Your task to perform on an android device: set the stopwatch Image 0: 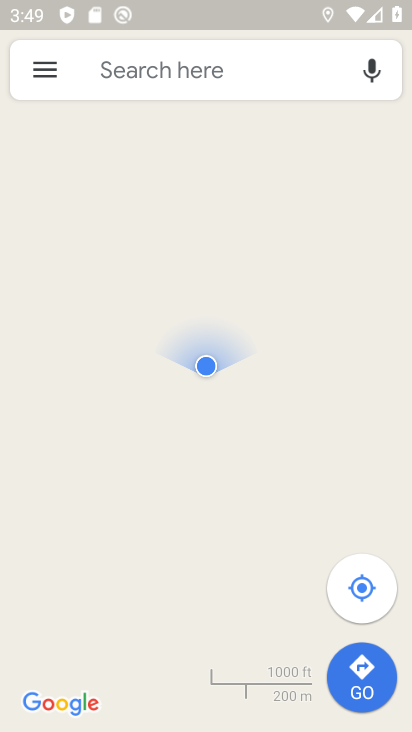
Step 0: press home button
Your task to perform on an android device: set the stopwatch Image 1: 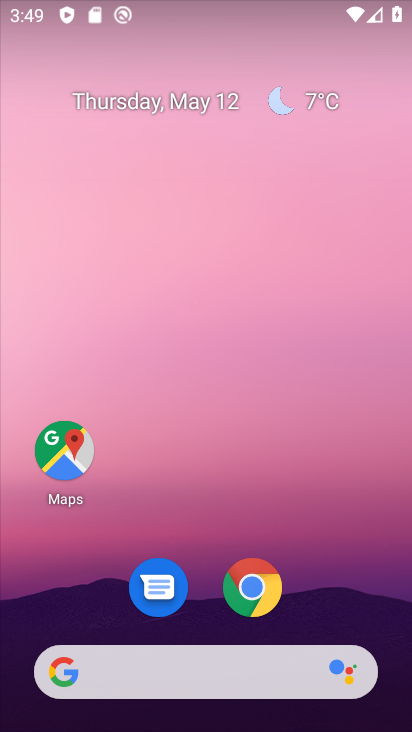
Step 1: drag from (106, 642) to (209, 139)
Your task to perform on an android device: set the stopwatch Image 2: 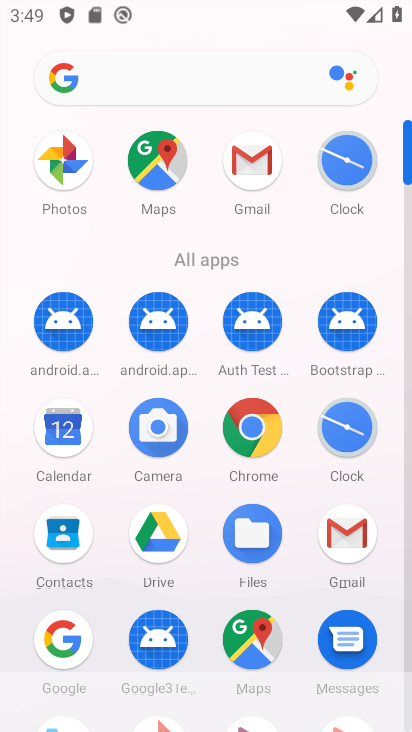
Step 2: click (344, 467)
Your task to perform on an android device: set the stopwatch Image 3: 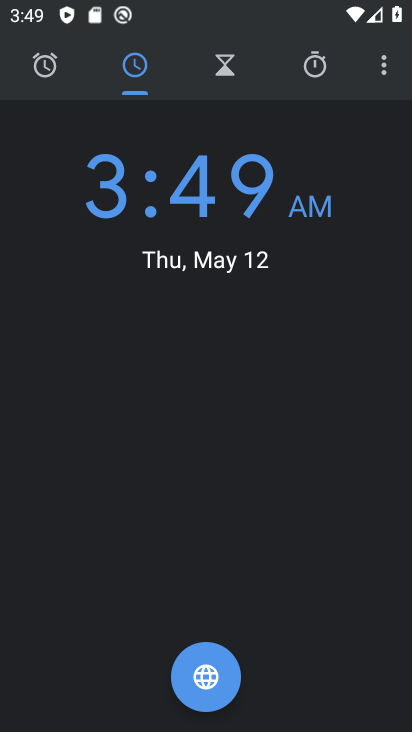
Step 3: click (324, 69)
Your task to perform on an android device: set the stopwatch Image 4: 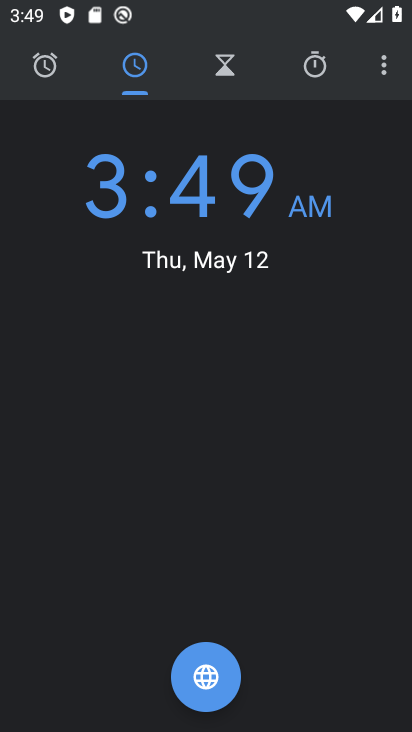
Step 4: click (308, 72)
Your task to perform on an android device: set the stopwatch Image 5: 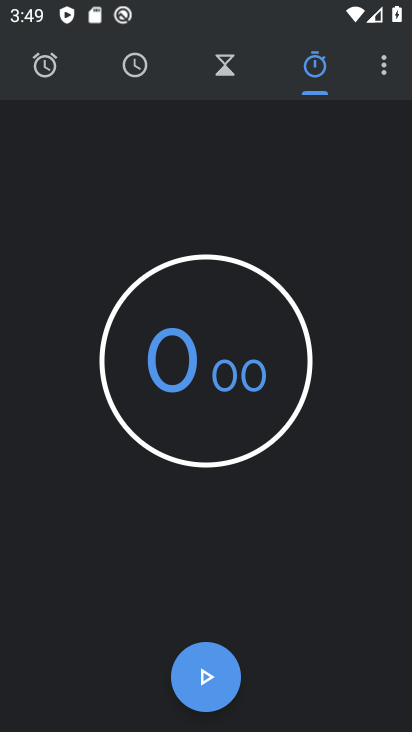
Step 5: click (218, 651)
Your task to perform on an android device: set the stopwatch Image 6: 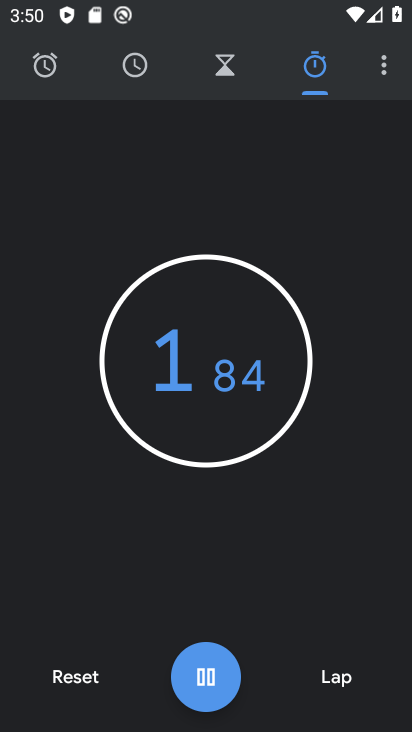
Step 6: task complete